Your task to perform on an android device: toggle translation in the chrome app Image 0: 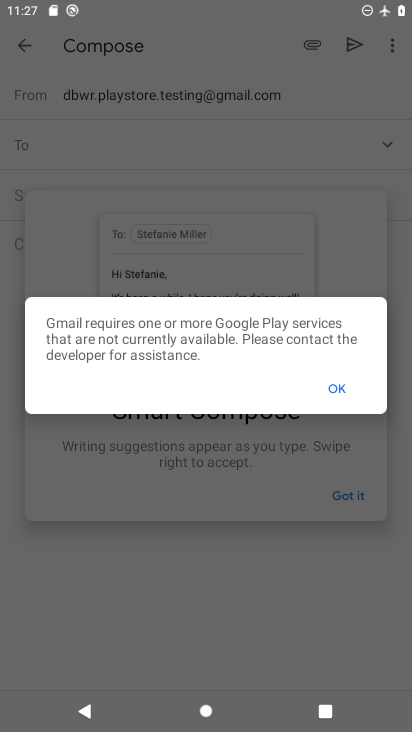
Step 0: press home button
Your task to perform on an android device: toggle translation in the chrome app Image 1: 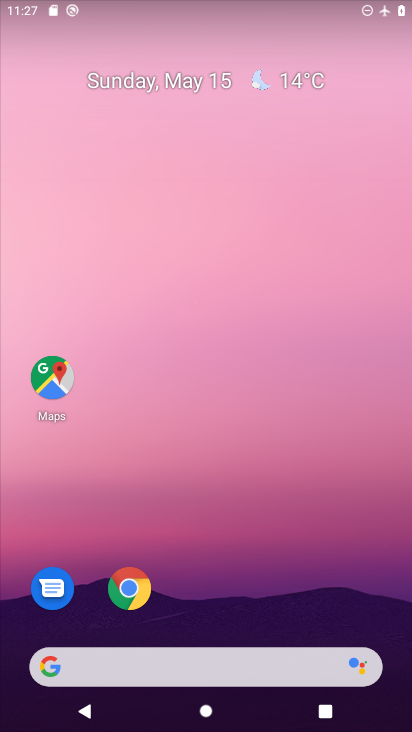
Step 1: click (133, 592)
Your task to perform on an android device: toggle translation in the chrome app Image 2: 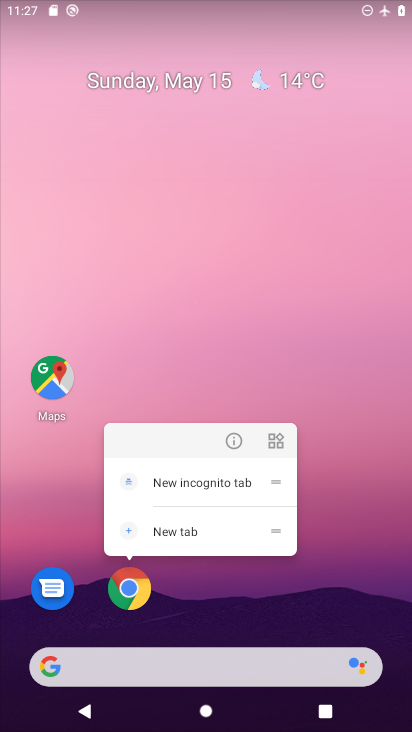
Step 2: click (119, 590)
Your task to perform on an android device: toggle translation in the chrome app Image 3: 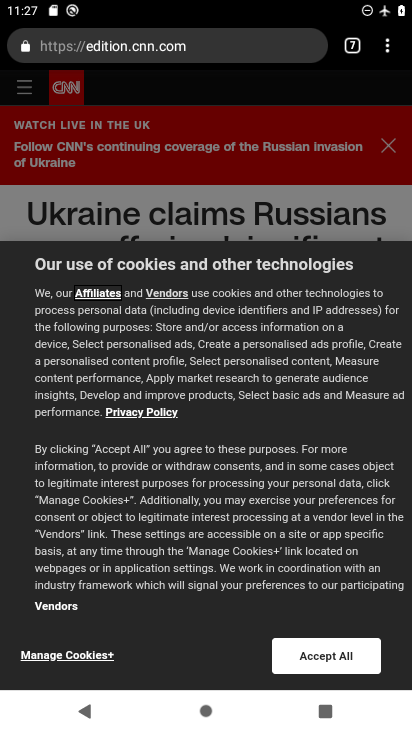
Step 3: click (387, 46)
Your task to perform on an android device: toggle translation in the chrome app Image 4: 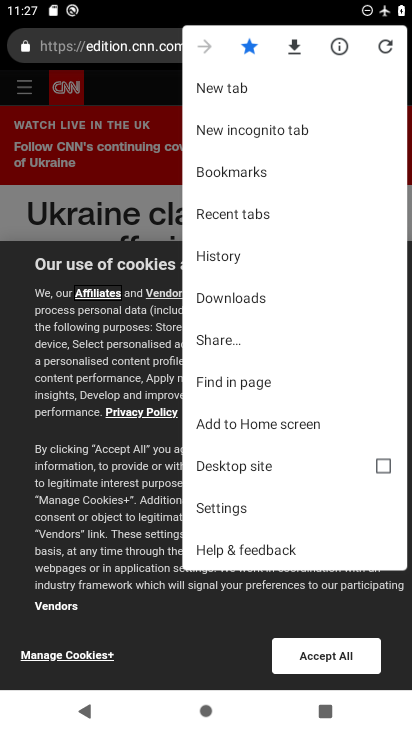
Step 4: click (232, 514)
Your task to perform on an android device: toggle translation in the chrome app Image 5: 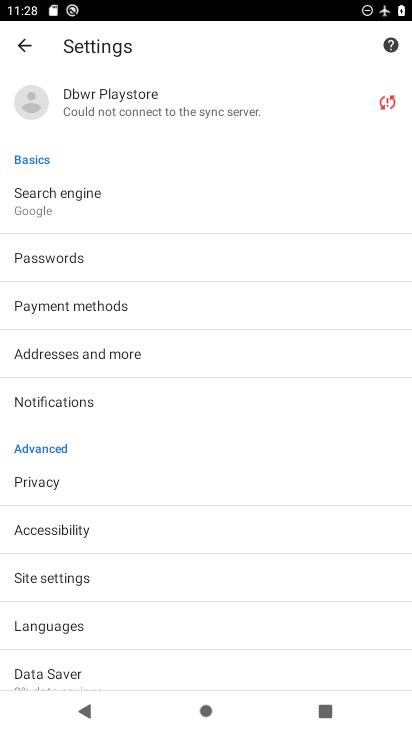
Step 5: click (95, 625)
Your task to perform on an android device: toggle translation in the chrome app Image 6: 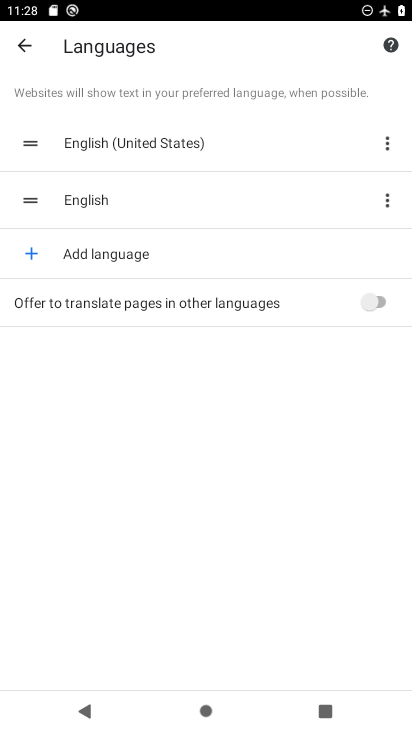
Step 6: click (381, 295)
Your task to perform on an android device: toggle translation in the chrome app Image 7: 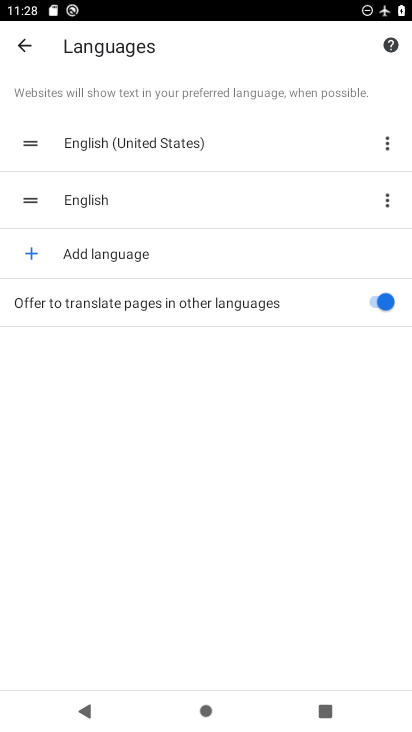
Step 7: task complete